Your task to perform on an android device: open sync settings in chrome Image 0: 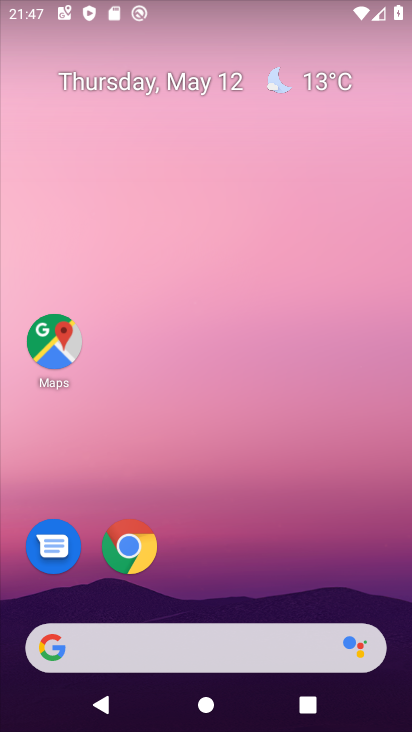
Step 0: press home button
Your task to perform on an android device: open sync settings in chrome Image 1: 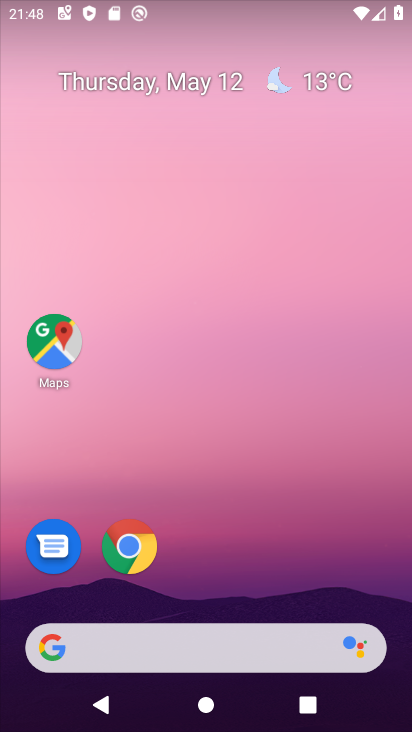
Step 1: click (134, 555)
Your task to perform on an android device: open sync settings in chrome Image 2: 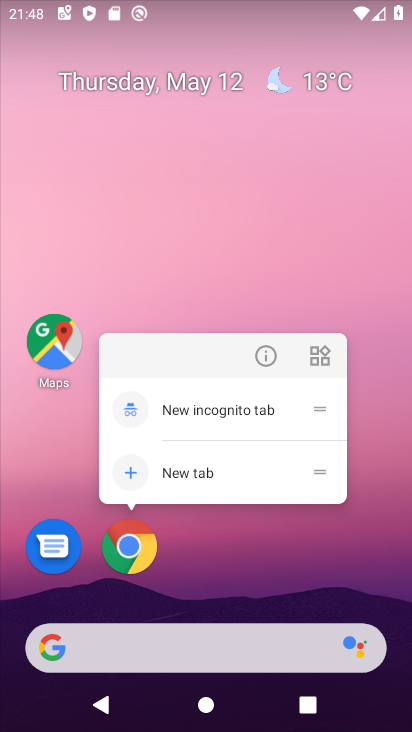
Step 2: click (134, 555)
Your task to perform on an android device: open sync settings in chrome Image 3: 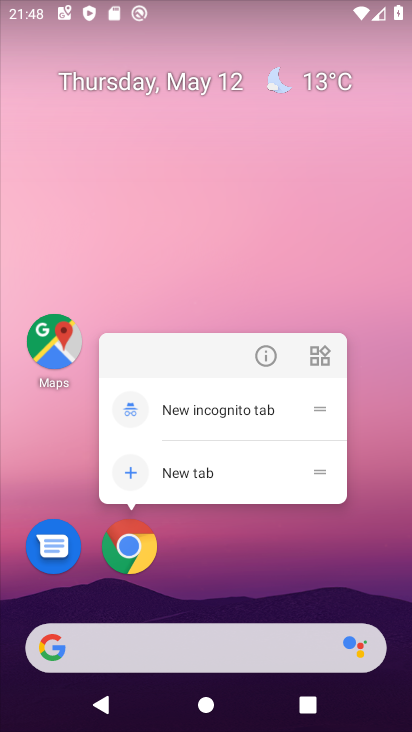
Step 3: click (134, 555)
Your task to perform on an android device: open sync settings in chrome Image 4: 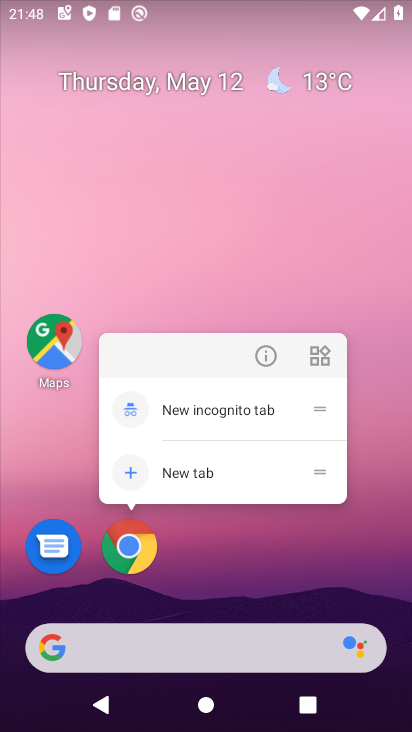
Step 4: click (134, 555)
Your task to perform on an android device: open sync settings in chrome Image 5: 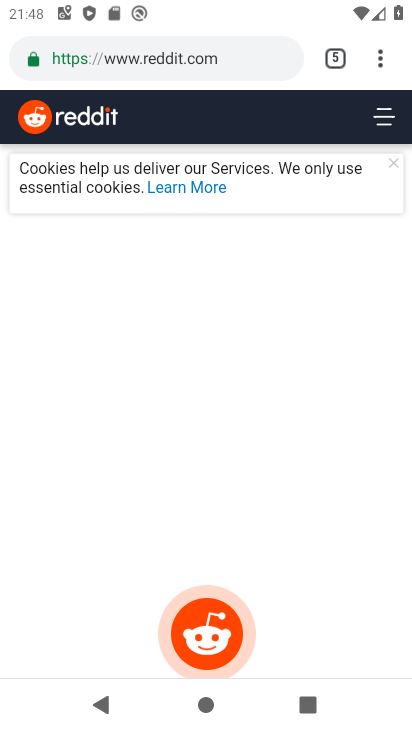
Step 5: drag from (384, 56) to (173, 565)
Your task to perform on an android device: open sync settings in chrome Image 6: 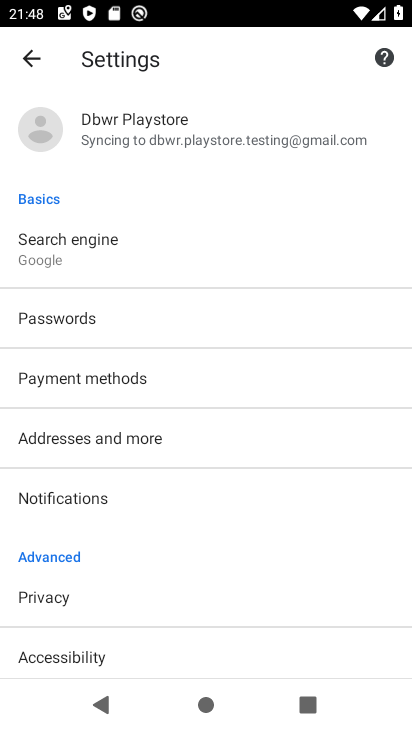
Step 6: drag from (301, 614) to (259, 180)
Your task to perform on an android device: open sync settings in chrome Image 7: 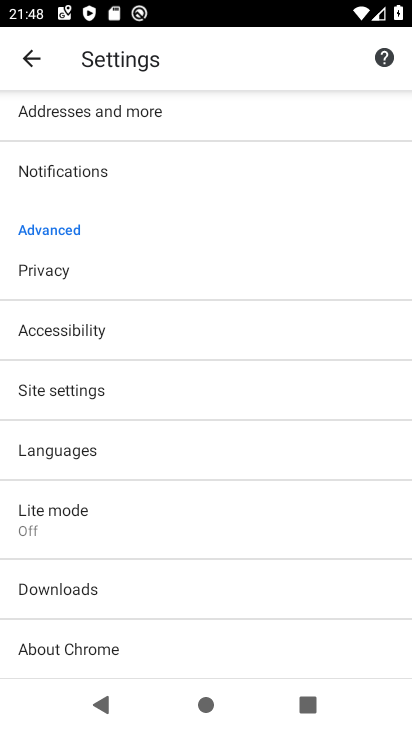
Step 7: drag from (119, 272) to (323, 725)
Your task to perform on an android device: open sync settings in chrome Image 8: 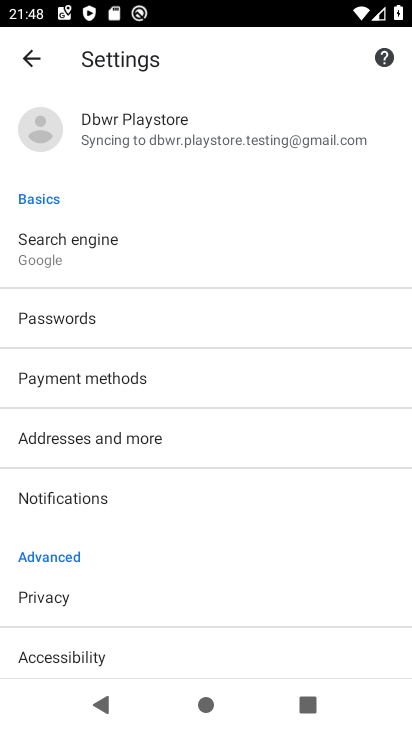
Step 8: drag from (303, 401) to (271, 715)
Your task to perform on an android device: open sync settings in chrome Image 9: 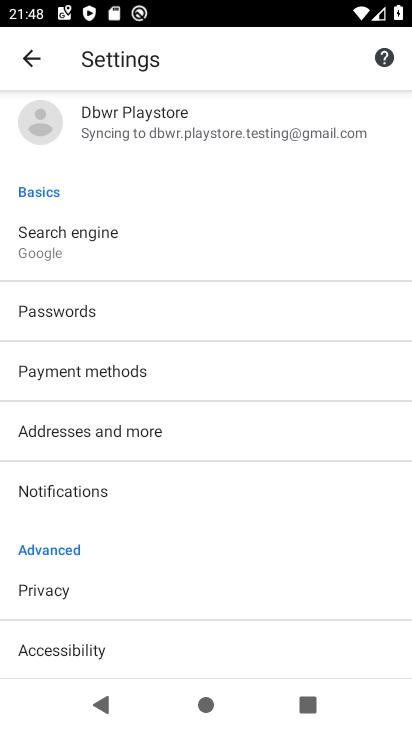
Step 9: click (170, 142)
Your task to perform on an android device: open sync settings in chrome Image 10: 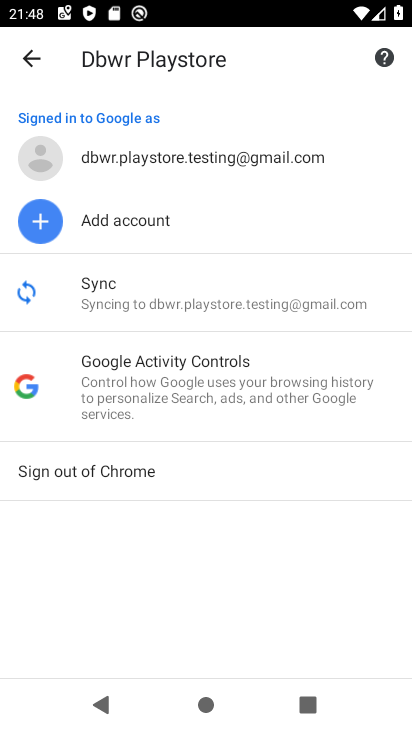
Step 10: click (246, 327)
Your task to perform on an android device: open sync settings in chrome Image 11: 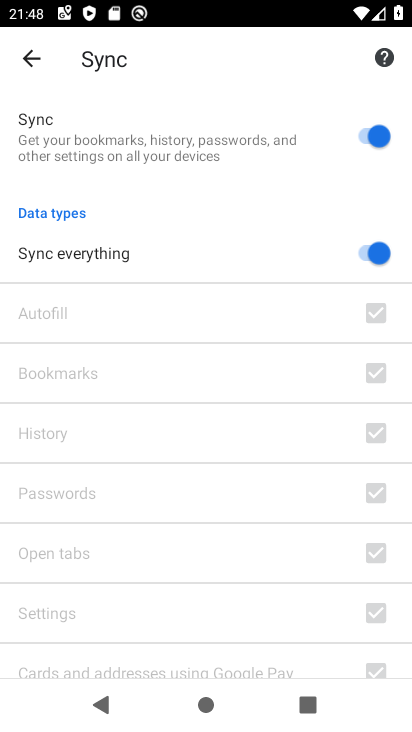
Step 11: task complete